Your task to perform on an android device: When is my next meeting? Image 0: 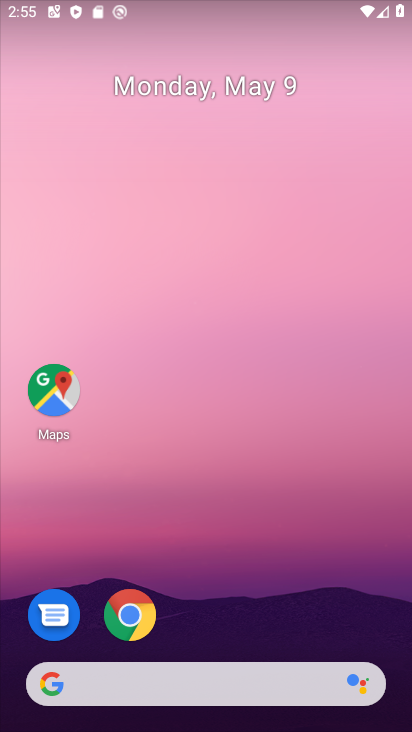
Step 0: drag from (181, 624) to (192, 285)
Your task to perform on an android device: When is my next meeting? Image 1: 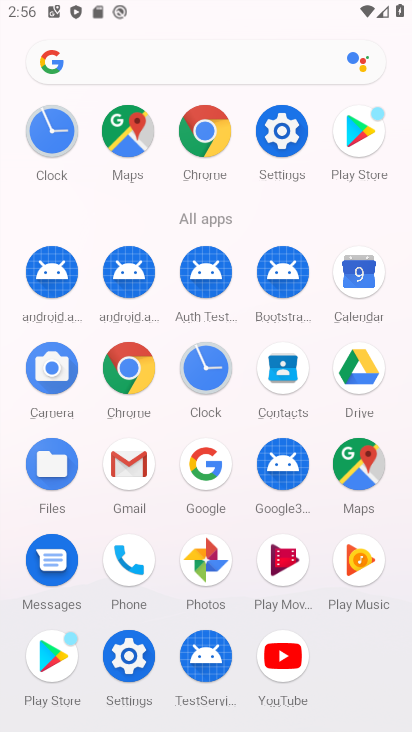
Step 1: click (366, 266)
Your task to perform on an android device: When is my next meeting? Image 2: 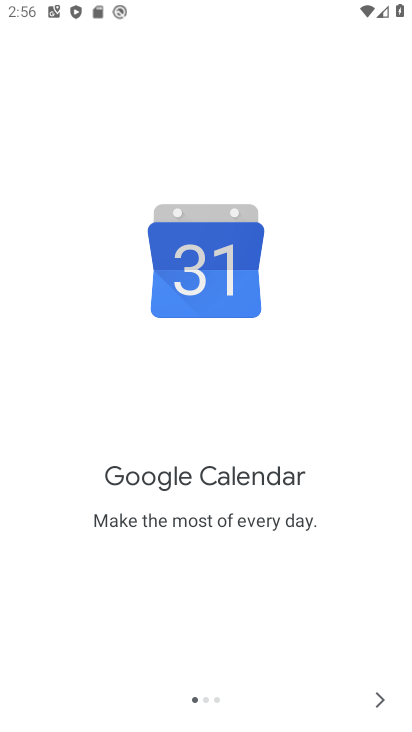
Step 2: click (364, 687)
Your task to perform on an android device: When is my next meeting? Image 3: 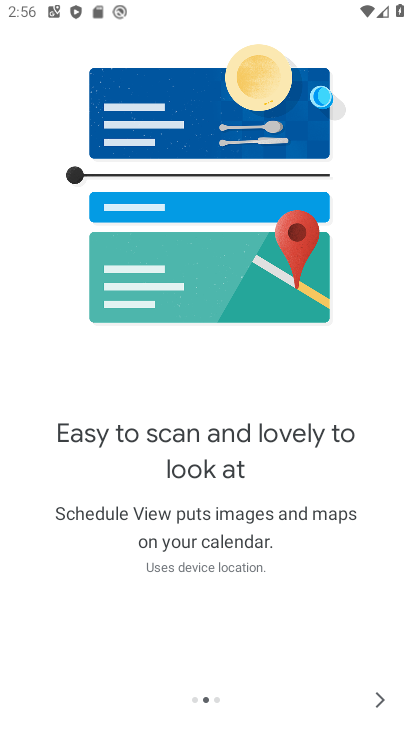
Step 3: click (367, 688)
Your task to perform on an android device: When is my next meeting? Image 4: 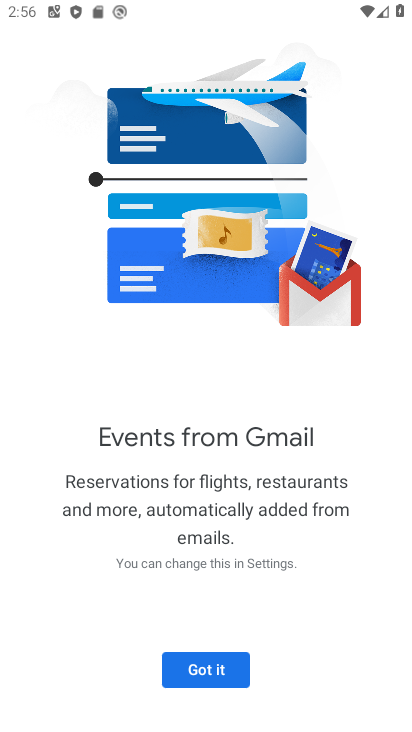
Step 4: click (367, 688)
Your task to perform on an android device: When is my next meeting? Image 5: 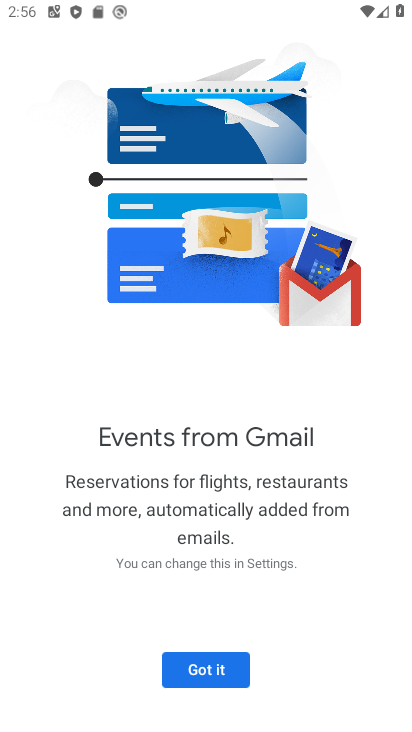
Step 5: click (196, 671)
Your task to perform on an android device: When is my next meeting? Image 6: 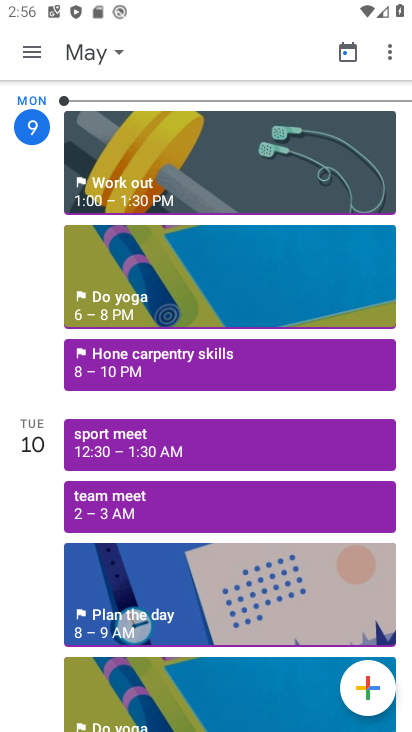
Step 6: click (39, 46)
Your task to perform on an android device: When is my next meeting? Image 7: 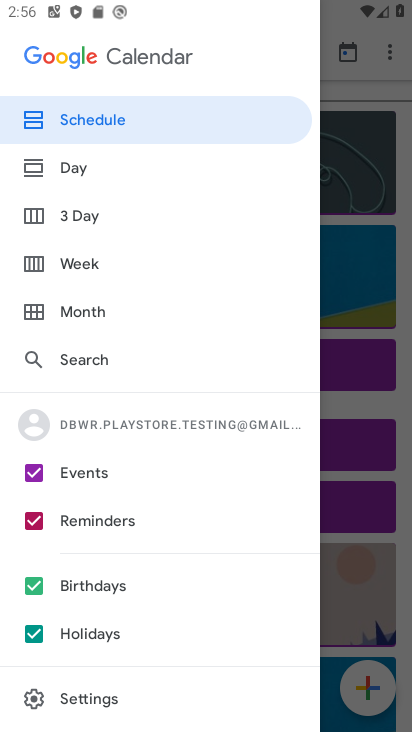
Step 7: click (105, 309)
Your task to perform on an android device: When is my next meeting? Image 8: 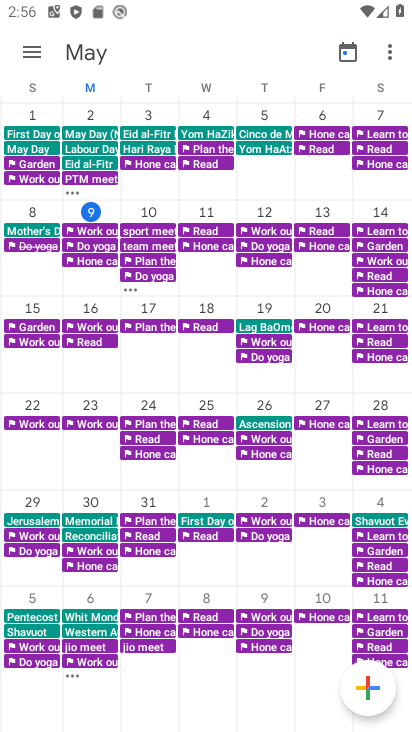
Step 8: click (159, 202)
Your task to perform on an android device: When is my next meeting? Image 9: 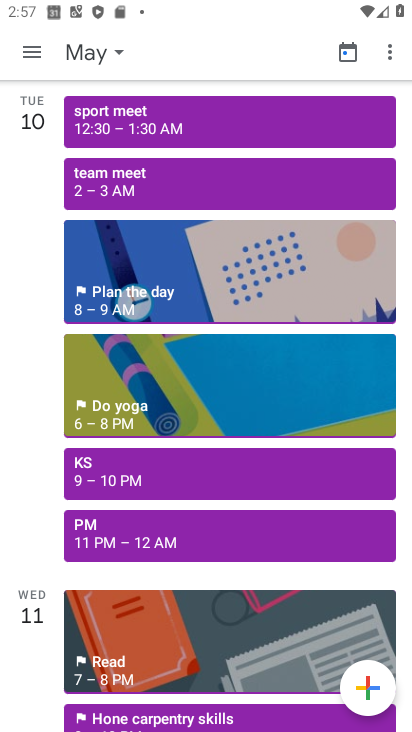
Step 9: task complete